Your task to perform on an android device: check google app version Image 0: 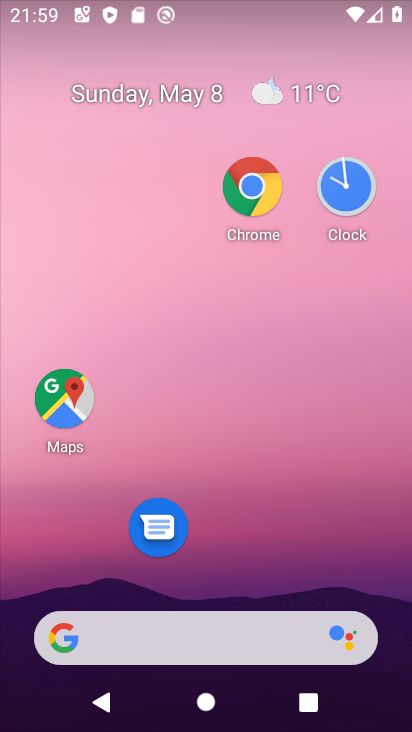
Step 0: drag from (259, 577) to (353, 347)
Your task to perform on an android device: check google app version Image 1: 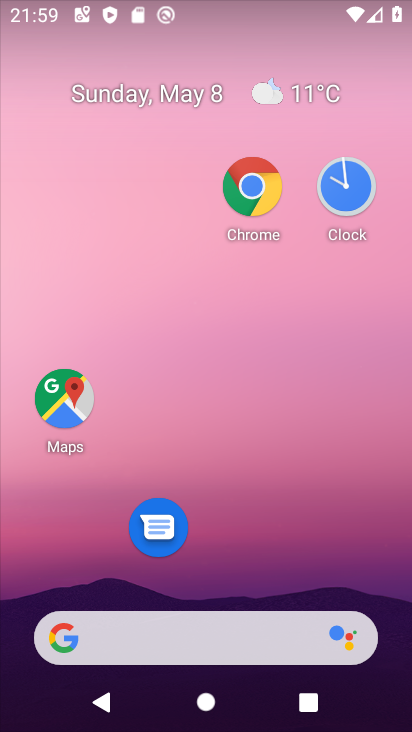
Step 1: drag from (243, 534) to (246, 0)
Your task to perform on an android device: check google app version Image 2: 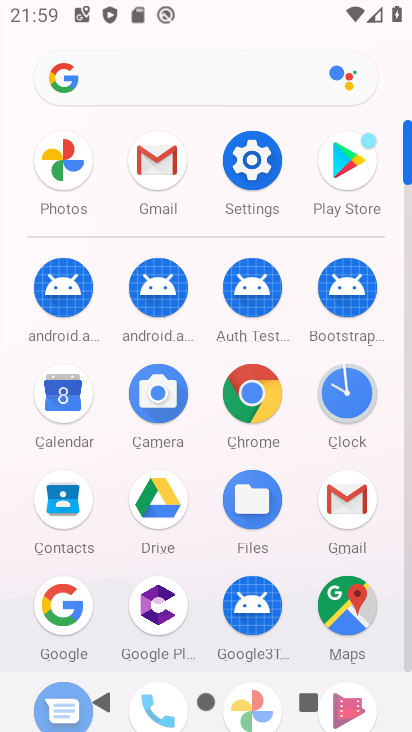
Step 2: click (47, 597)
Your task to perform on an android device: check google app version Image 3: 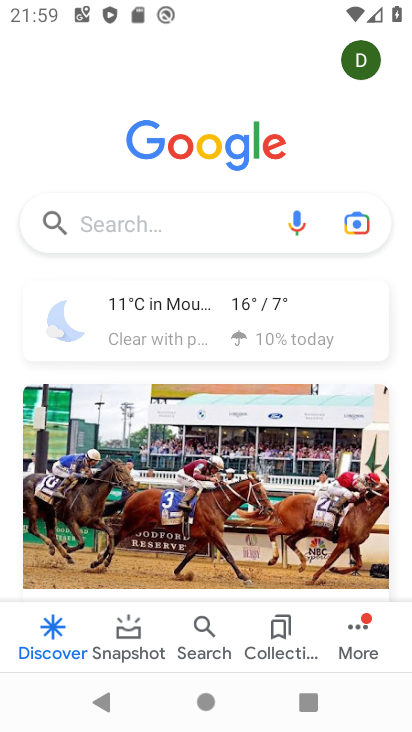
Step 3: click (355, 642)
Your task to perform on an android device: check google app version Image 4: 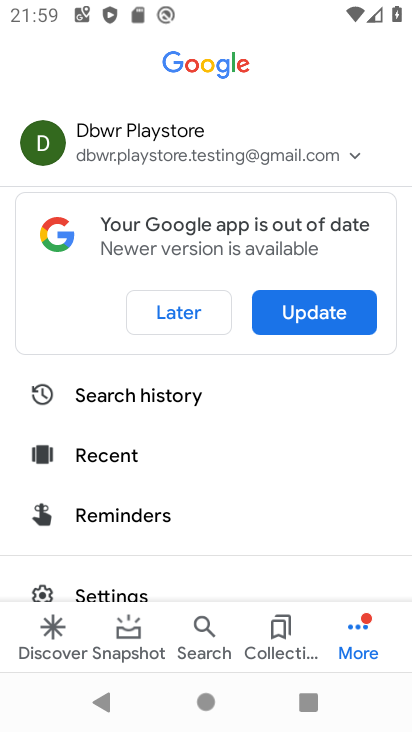
Step 4: drag from (330, 559) to (364, 276)
Your task to perform on an android device: check google app version Image 5: 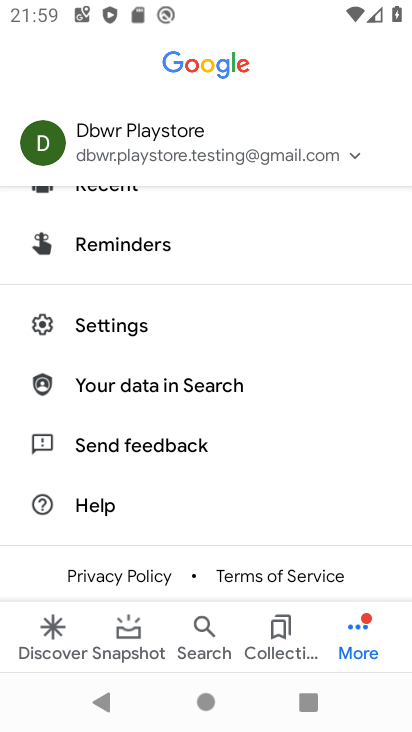
Step 5: click (315, 327)
Your task to perform on an android device: check google app version Image 6: 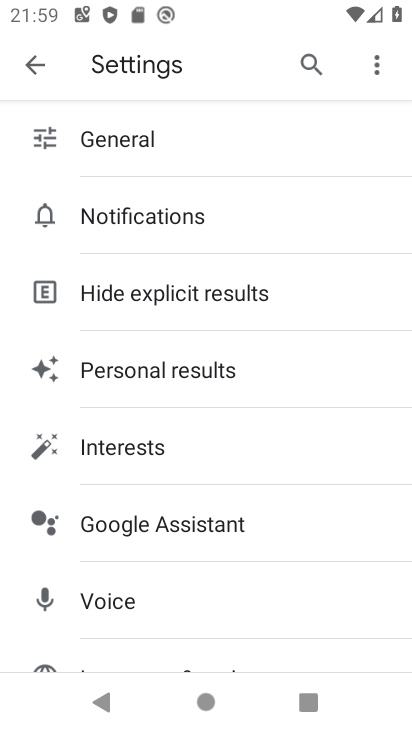
Step 6: drag from (204, 560) to (202, 226)
Your task to perform on an android device: check google app version Image 7: 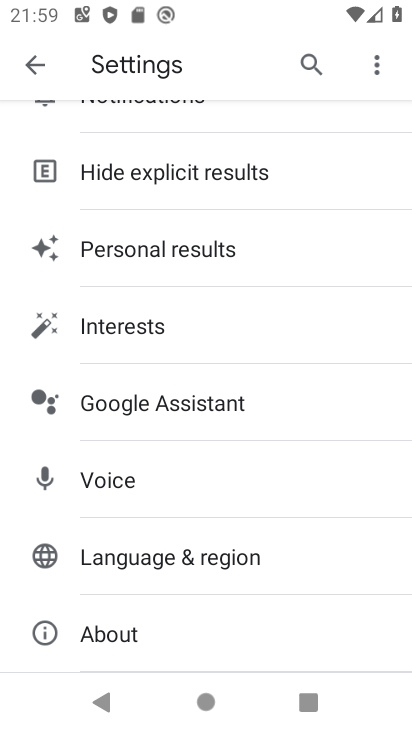
Step 7: drag from (169, 580) to (235, 228)
Your task to perform on an android device: check google app version Image 8: 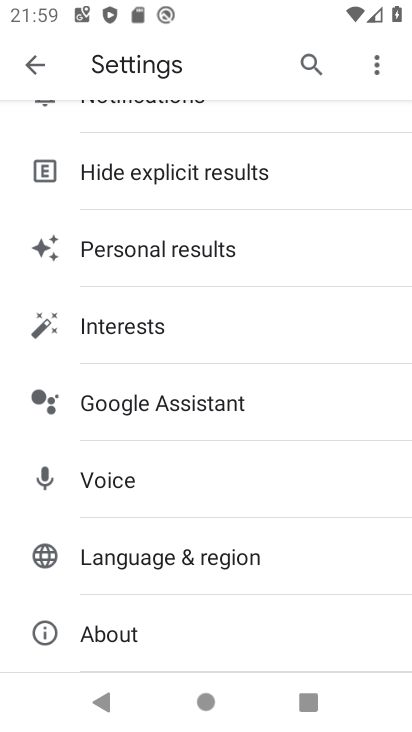
Step 8: click (147, 624)
Your task to perform on an android device: check google app version Image 9: 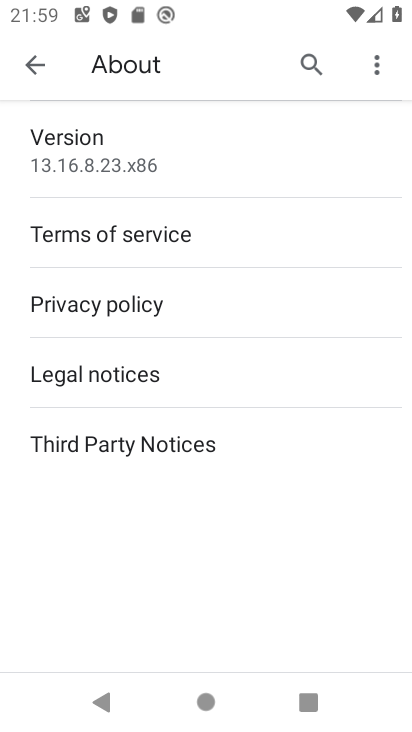
Step 9: click (209, 136)
Your task to perform on an android device: check google app version Image 10: 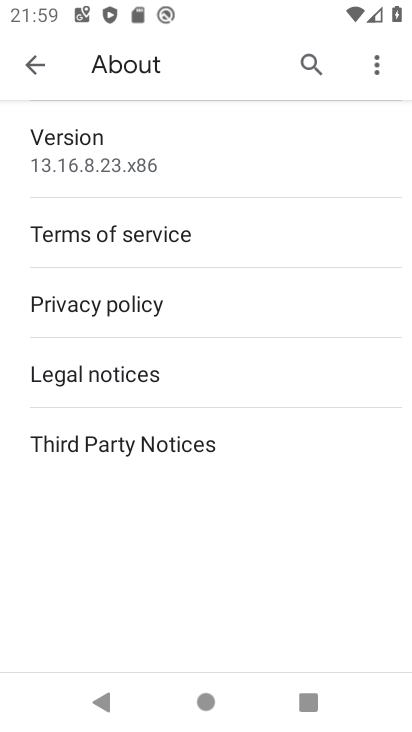
Step 10: task complete